Your task to perform on an android device: turn off picture-in-picture Image 0: 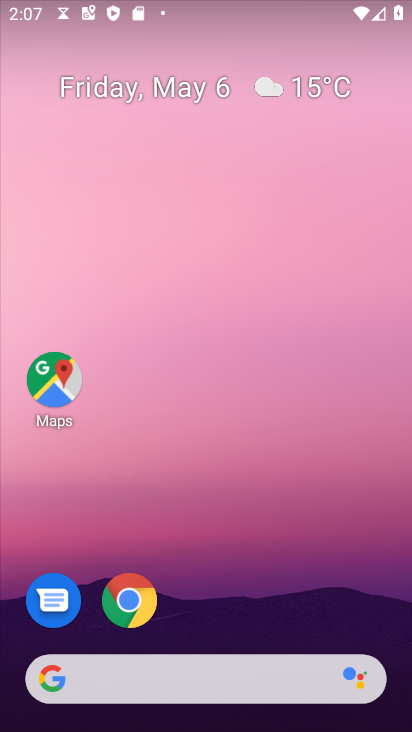
Step 0: drag from (261, 535) to (255, 0)
Your task to perform on an android device: turn off picture-in-picture Image 1: 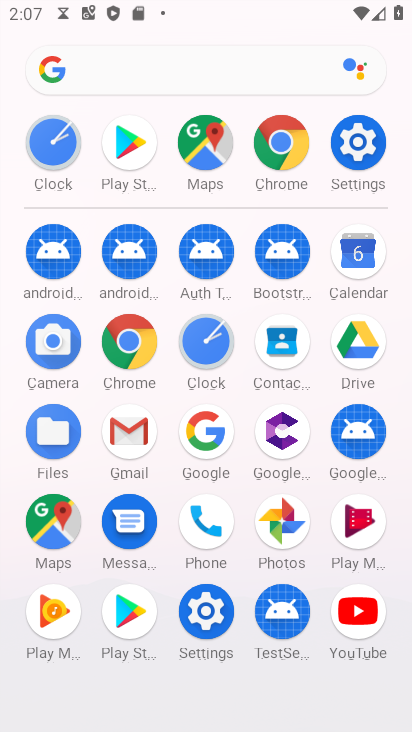
Step 1: drag from (10, 565) to (3, 227)
Your task to perform on an android device: turn off picture-in-picture Image 2: 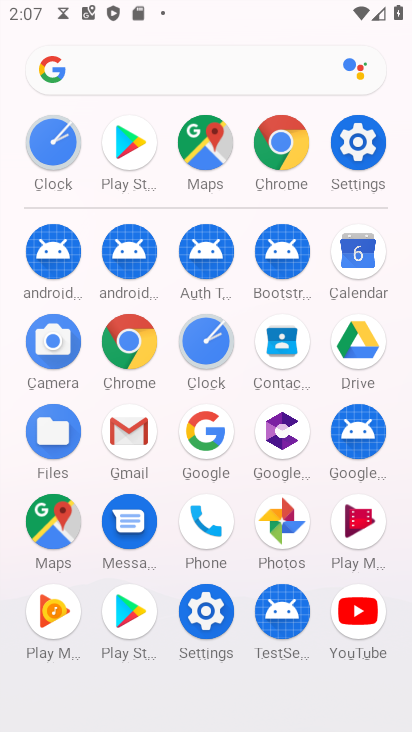
Step 2: click (202, 613)
Your task to perform on an android device: turn off picture-in-picture Image 3: 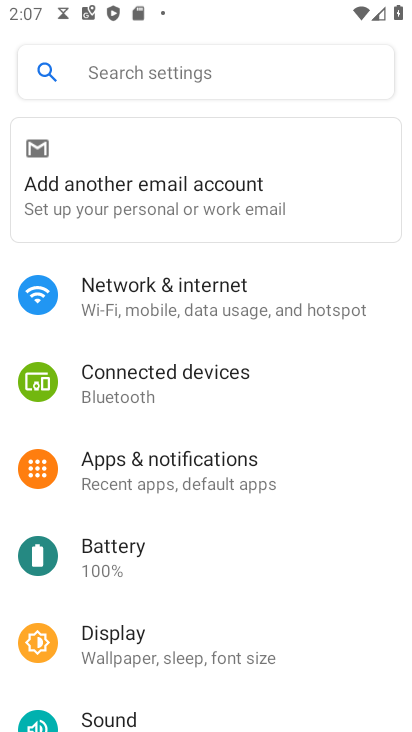
Step 3: drag from (348, 576) to (386, 146)
Your task to perform on an android device: turn off picture-in-picture Image 4: 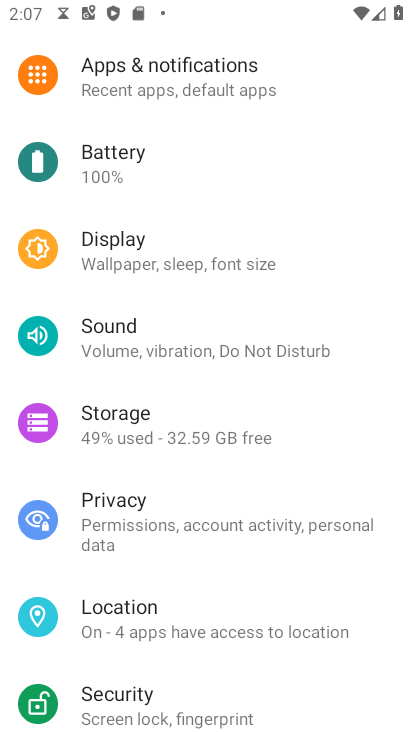
Step 4: drag from (345, 584) to (349, 134)
Your task to perform on an android device: turn off picture-in-picture Image 5: 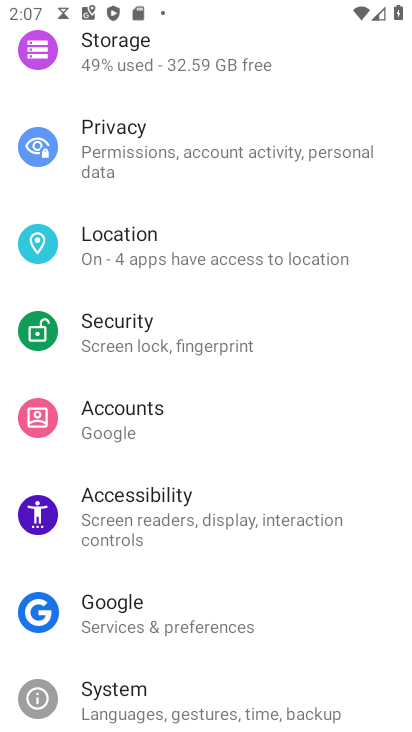
Step 5: drag from (328, 624) to (339, 79)
Your task to perform on an android device: turn off picture-in-picture Image 6: 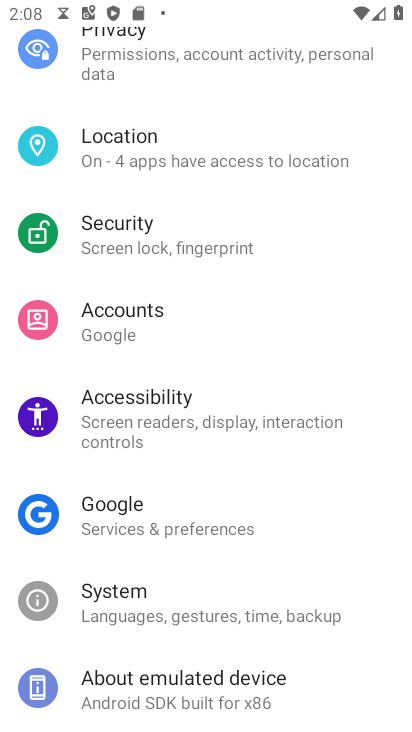
Step 6: drag from (292, 357) to (298, 541)
Your task to perform on an android device: turn off picture-in-picture Image 7: 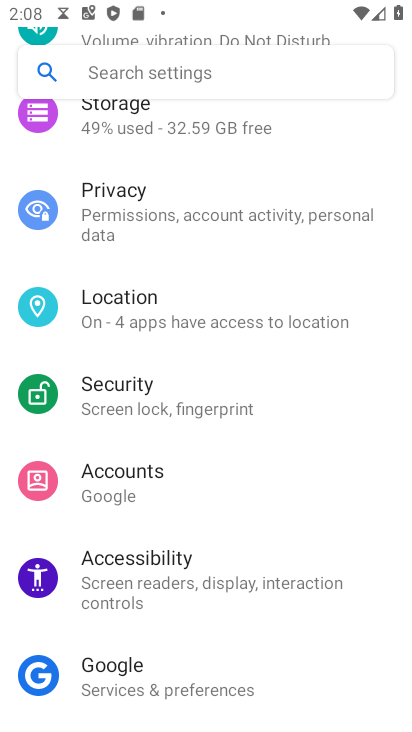
Step 7: drag from (212, 153) to (199, 637)
Your task to perform on an android device: turn off picture-in-picture Image 8: 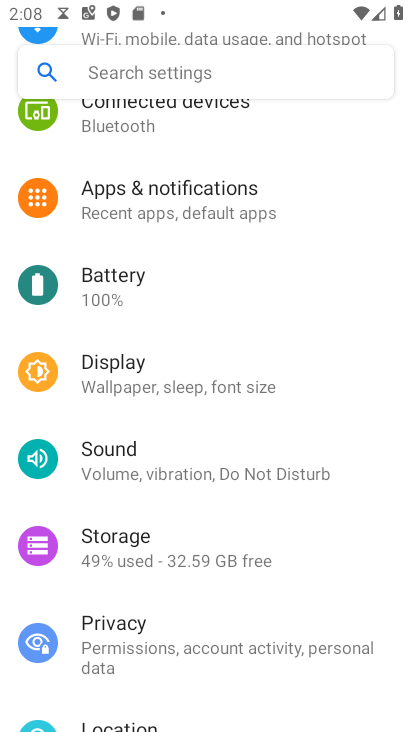
Step 8: click (193, 205)
Your task to perform on an android device: turn off picture-in-picture Image 9: 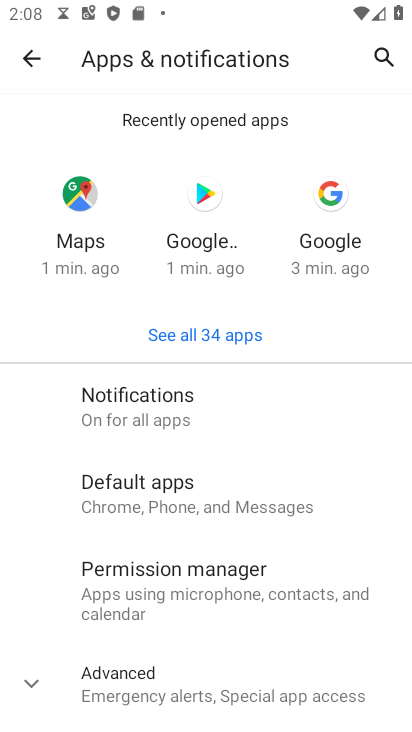
Step 9: drag from (234, 623) to (231, 214)
Your task to perform on an android device: turn off picture-in-picture Image 10: 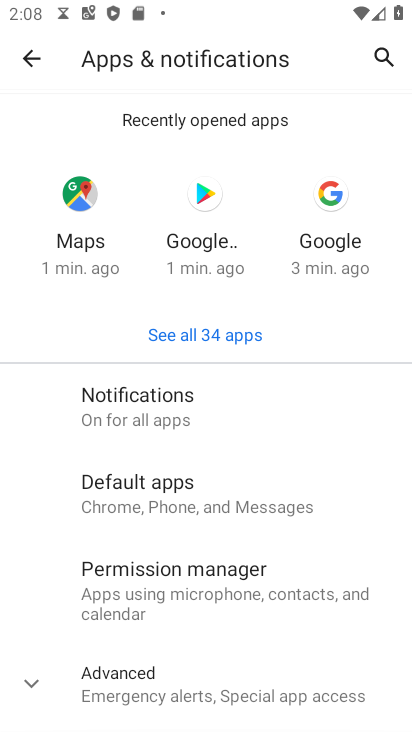
Step 10: click (80, 678)
Your task to perform on an android device: turn off picture-in-picture Image 11: 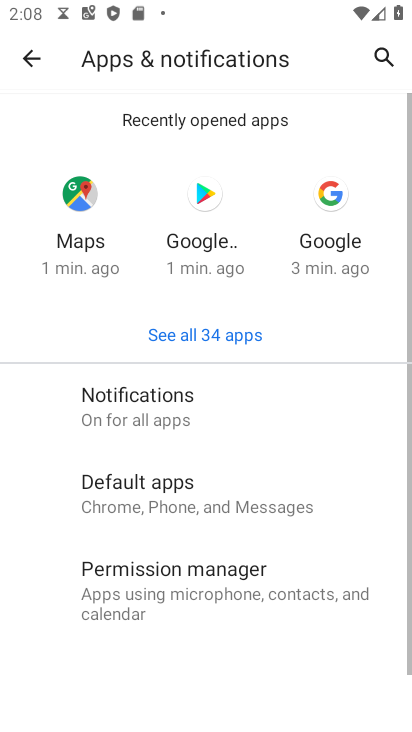
Step 11: click (80, 678)
Your task to perform on an android device: turn off picture-in-picture Image 12: 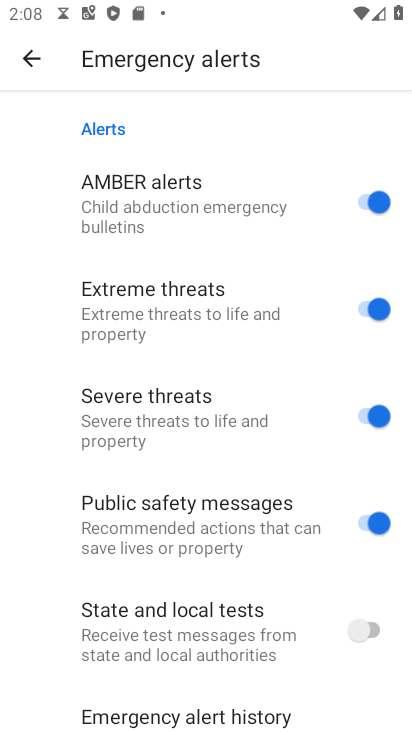
Step 12: press back button
Your task to perform on an android device: turn off picture-in-picture Image 13: 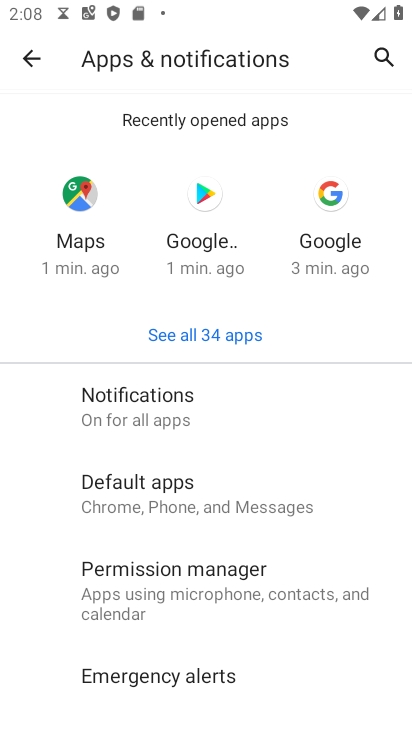
Step 13: drag from (239, 586) to (272, 117)
Your task to perform on an android device: turn off picture-in-picture Image 14: 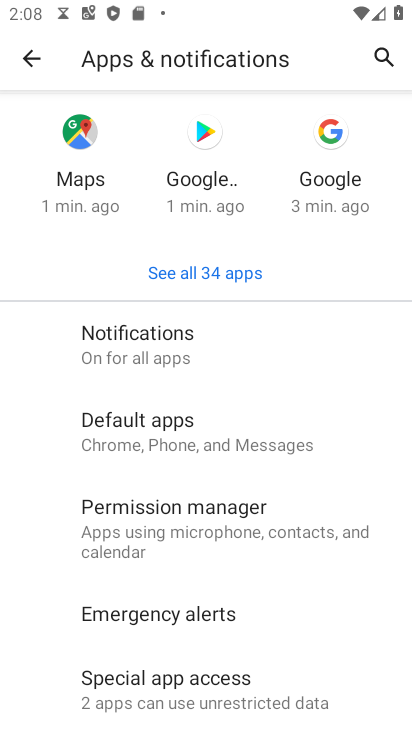
Step 14: click (209, 376)
Your task to perform on an android device: turn off picture-in-picture Image 15: 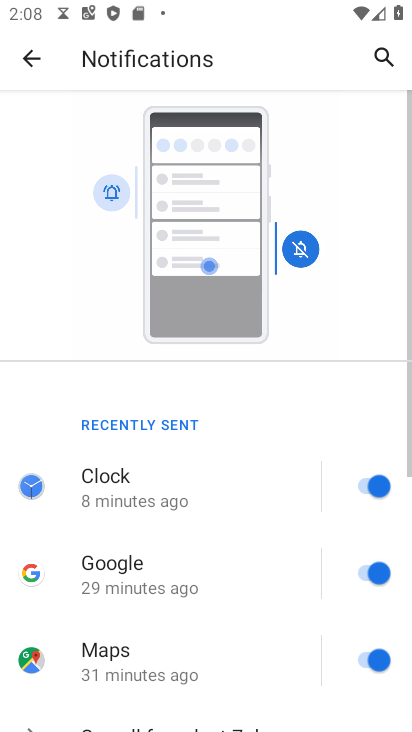
Step 15: drag from (232, 606) to (238, 74)
Your task to perform on an android device: turn off picture-in-picture Image 16: 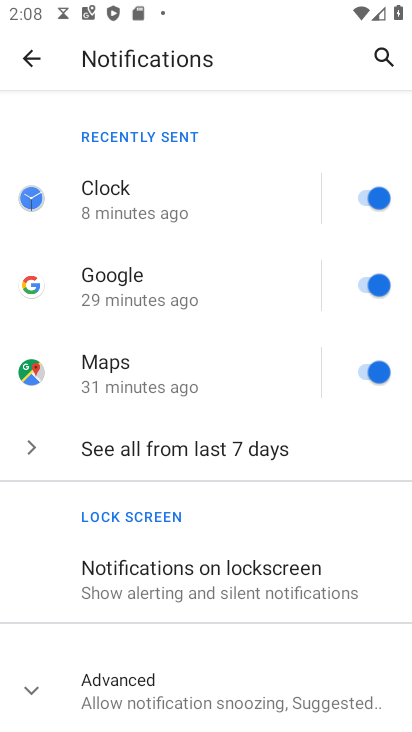
Step 16: click (120, 690)
Your task to perform on an android device: turn off picture-in-picture Image 17: 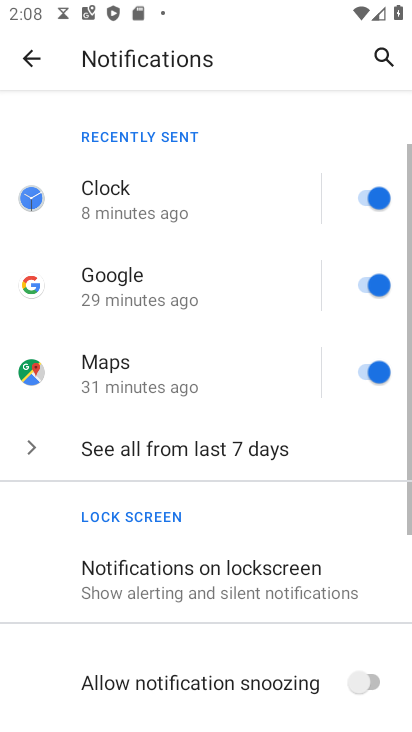
Step 17: drag from (217, 631) to (293, 131)
Your task to perform on an android device: turn off picture-in-picture Image 18: 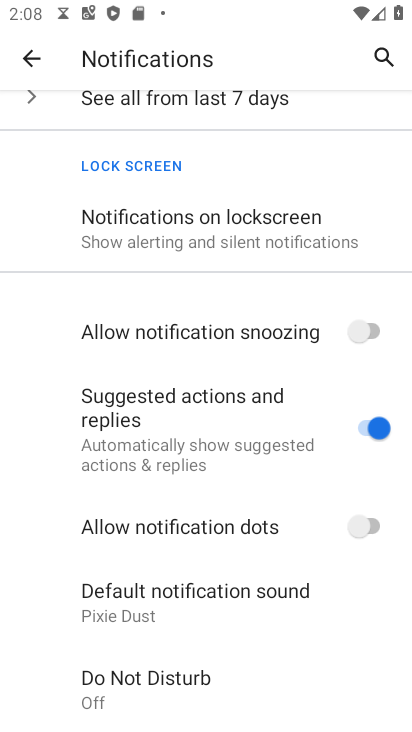
Step 18: drag from (222, 603) to (209, 127)
Your task to perform on an android device: turn off picture-in-picture Image 19: 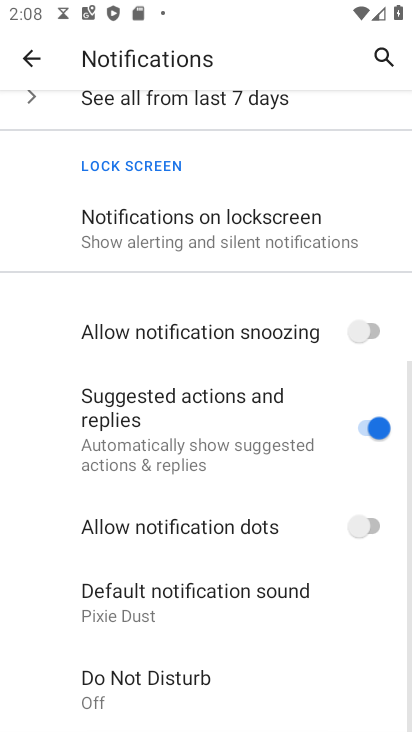
Step 19: click (14, 59)
Your task to perform on an android device: turn off picture-in-picture Image 20: 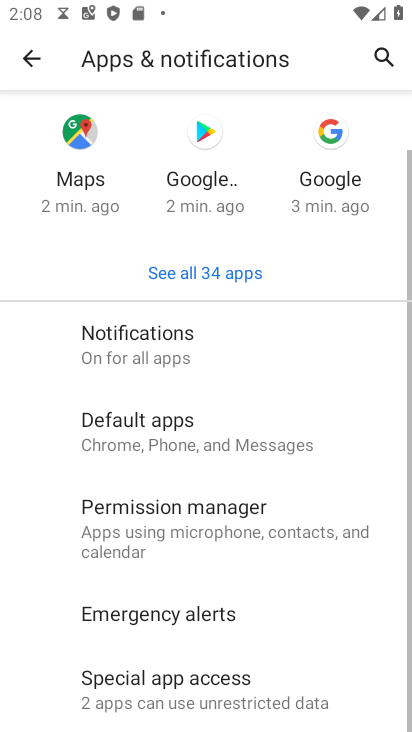
Step 20: drag from (201, 525) to (213, 181)
Your task to perform on an android device: turn off picture-in-picture Image 21: 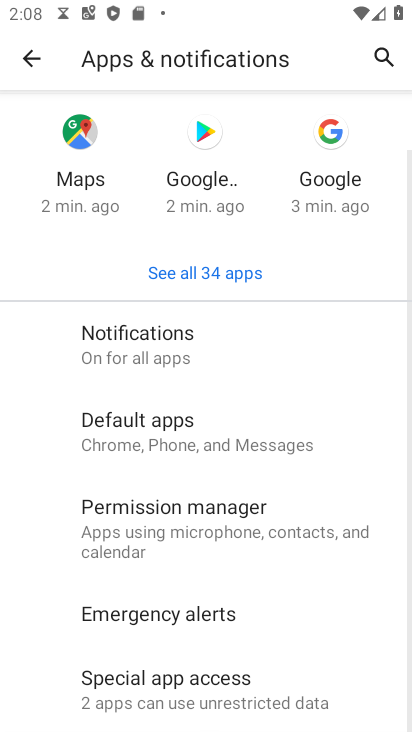
Step 21: click (153, 674)
Your task to perform on an android device: turn off picture-in-picture Image 22: 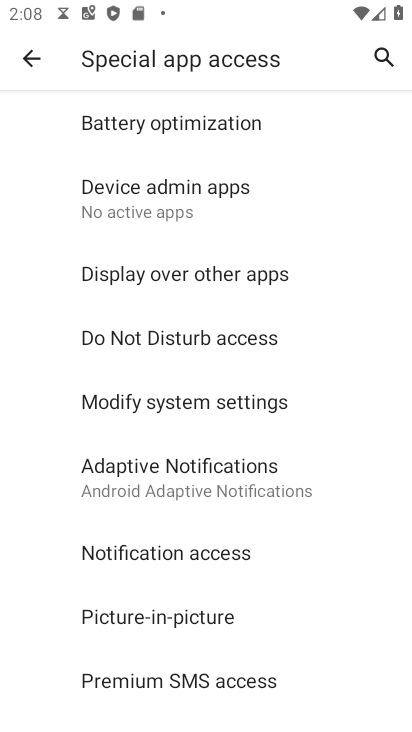
Step 22: click (176, 624)
Your task to perform on an android device: turn off picture-in-picture Image 23: 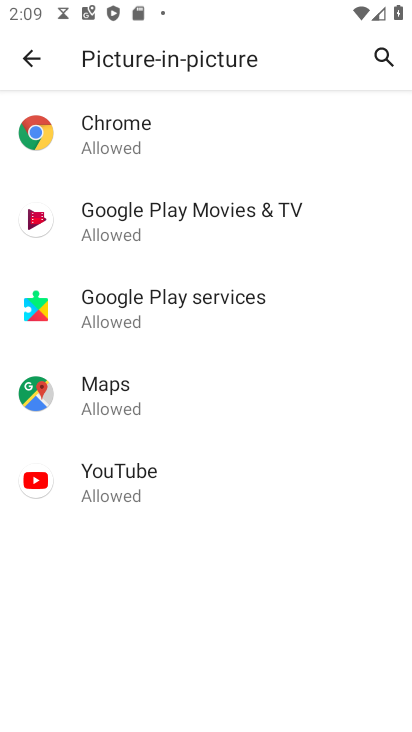
Step 23: click (211, 133)
Your task to perform on an android device: turn off picture-in-picture Image 24: 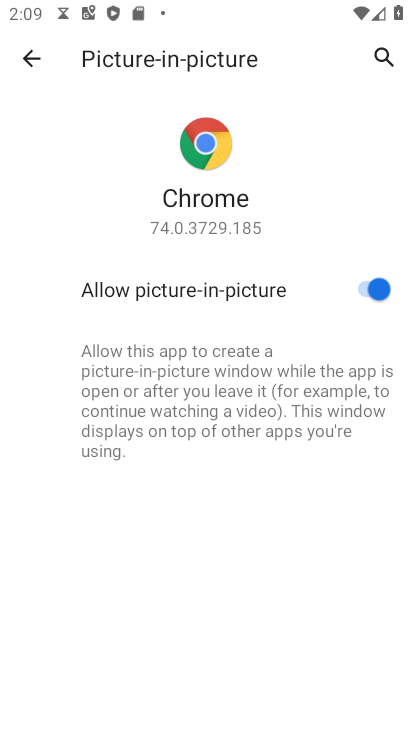
Step 24: click (367, 284)
Your task to perform on an android device: turn off picture-in-picture Image 25: 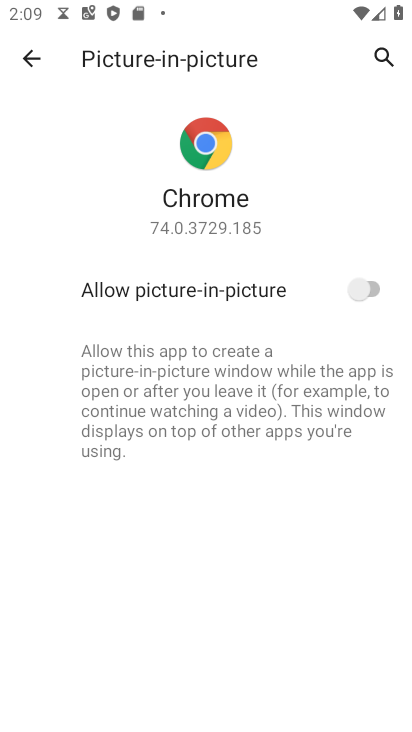
Step 25: click (21, 42)
Your task to perform on an android device: turn off picture-in-picture Image 26: 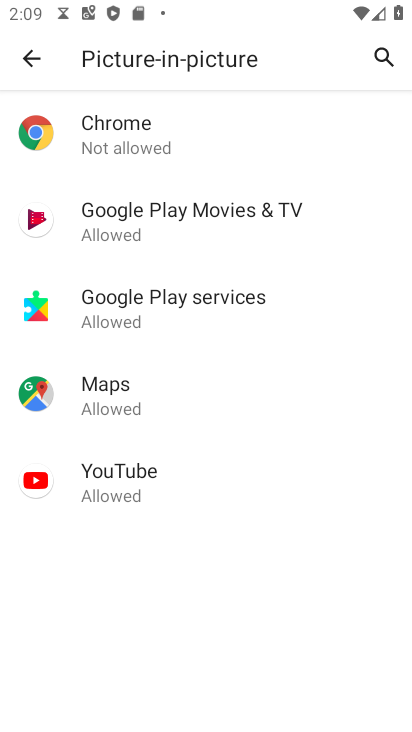
Step 26: click (240, 227)
Your task to perform on an android device: turn off picture-in-picture Image 27: 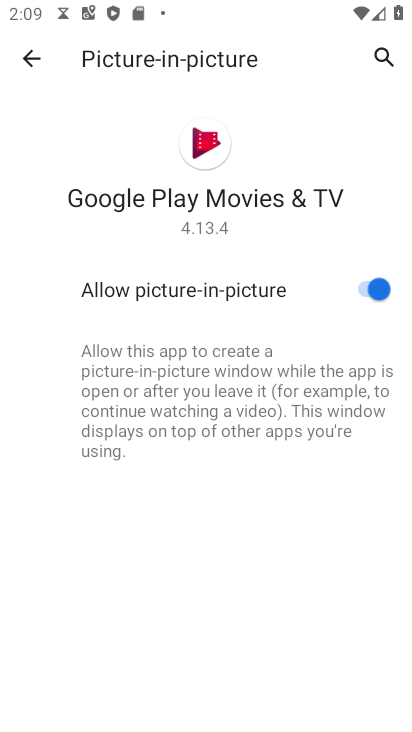
Step 27: click (376, 282)
Your task to perform on an android device: turn off picture-in-picture Image 28: 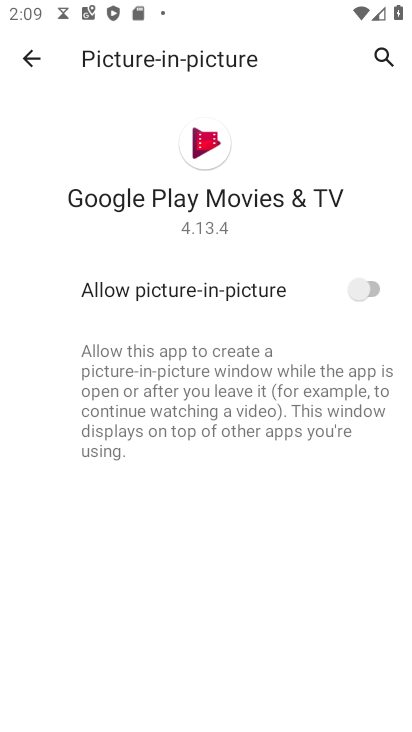
Step 28: click (31, 49)
Your task to perform on an android device: turn off picture-in-picture Image 29: 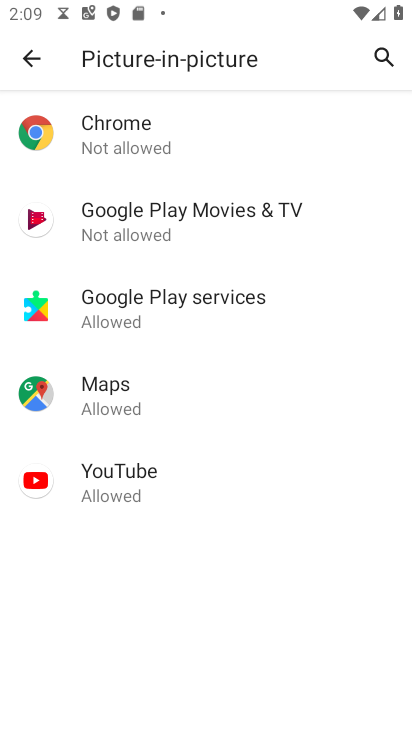
Step 29: click (151, 316)
Your task to perform on an android device: turn off picture-in-picture Image 30: 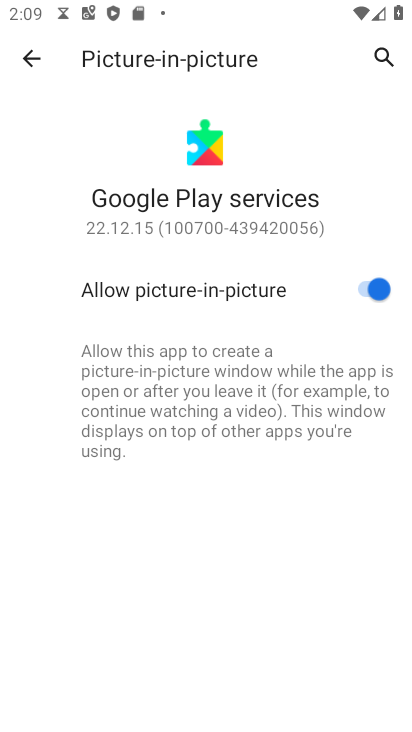
Step 30: click (364, 293)
Your task to perform on an android device: turn off picture-in-picture Image 31: 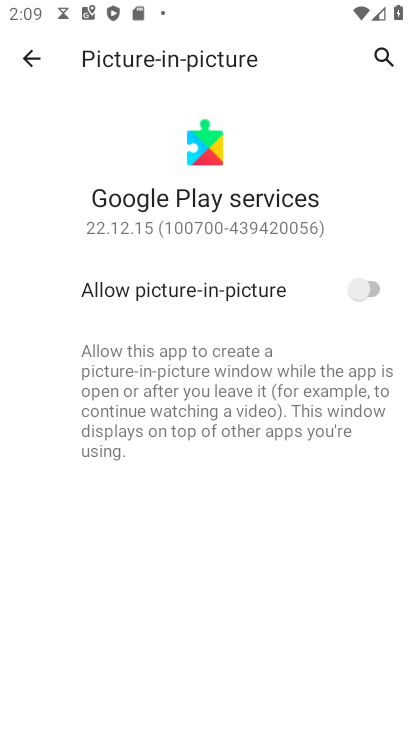
Step 31: click (20, 53)
Your task to perform on an android device: turn off picture-in-picture Image 32: 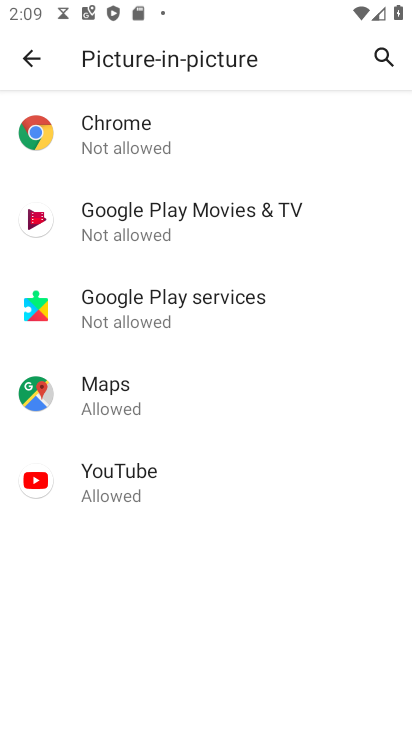
Step 32: click (145, 382)
Your task to perform on an android device: turn off picture-in-picture Image 33: 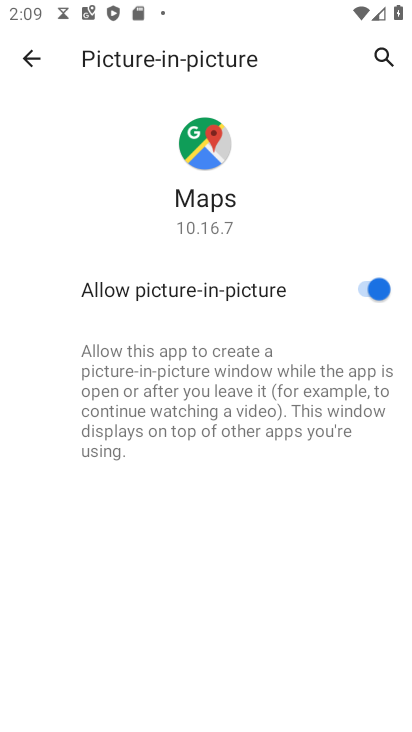
Step 33: click (373, 302)
Your task to perform on an android device: turn off picture-in-picture Image 34: 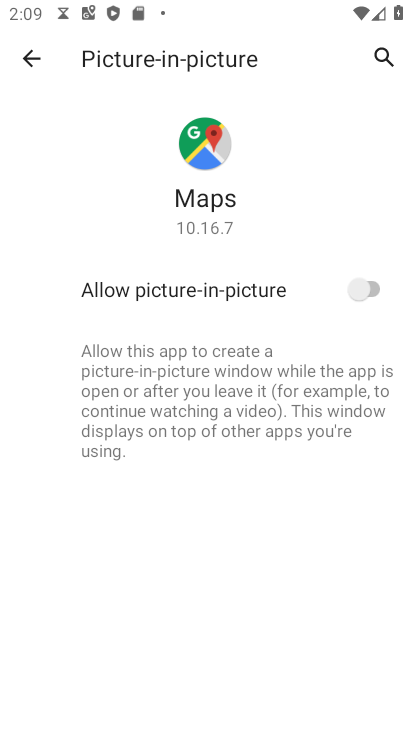
Step 34: click (44, 57)
Your task to perform on an android device: turn off picture-in-picture Image 35: 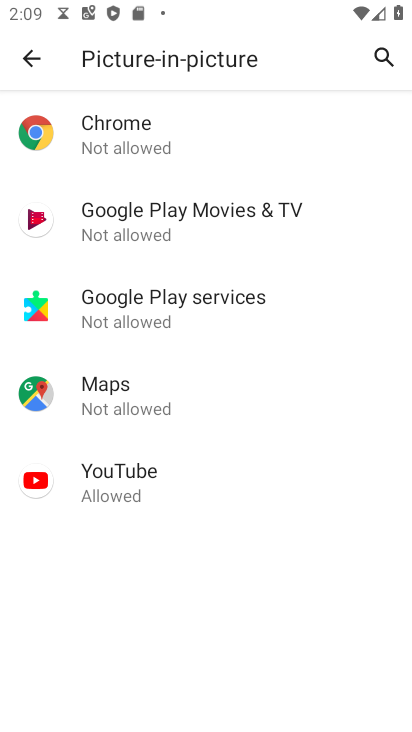
Step 35: click (126, 492)
Your task to perform on an android device: turn off picture-in-picture Image 36: 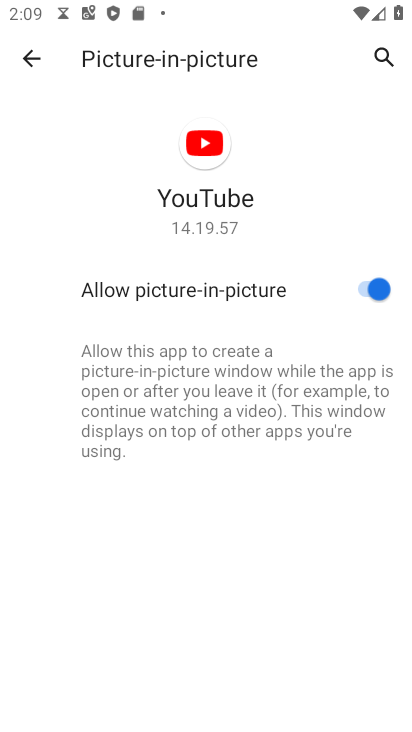
Step 36: click (368, 288)
Your task to perform on an android device: turn off picture-in-picture Image 37: 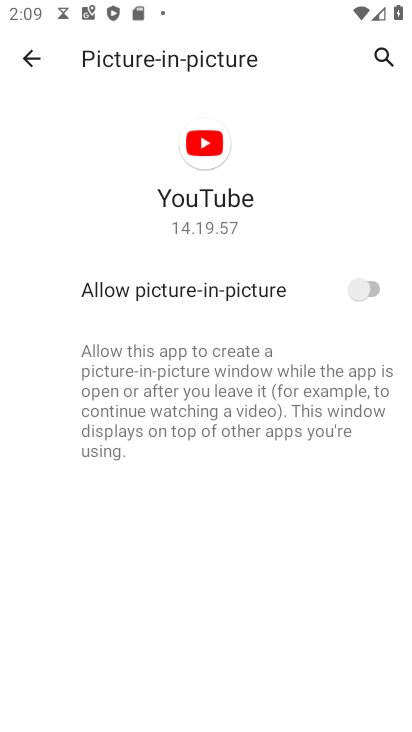
Step 37: click (34, 49)
Your task to perform on an android device: turn off picture-in-picture Image 38: 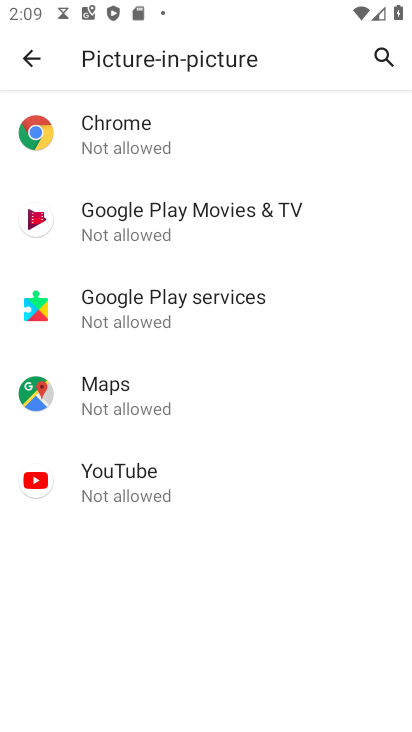
Step 38: task complete